Your task to perform on an android device: change timer sound Image 0: 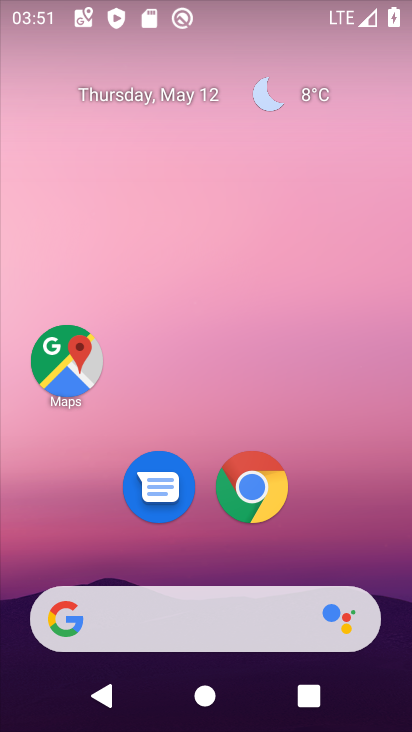
Step 0: drag from (346, 508) to (356, 132)
Your task to perform on an android device: change timer sound Image 1: 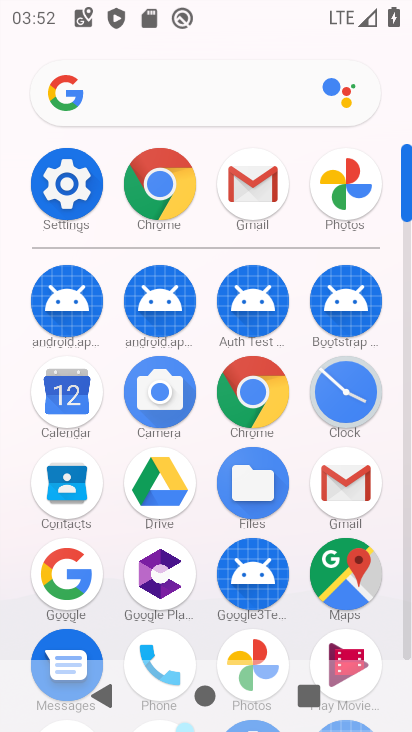
Step 1: drag from (208, 561) to (236, 193)
Your task to perform on an android device: change timer sound Image 2: 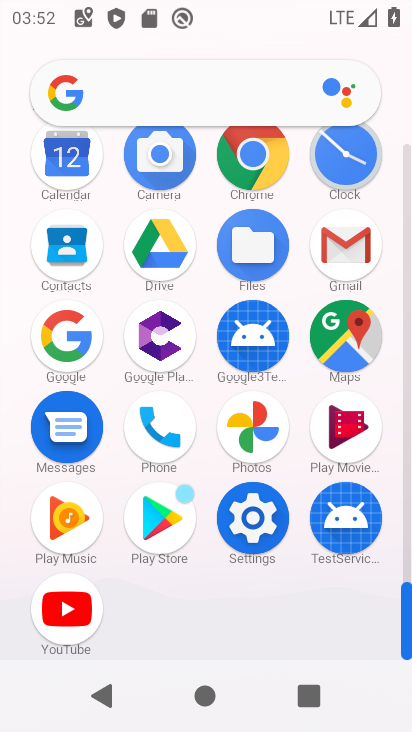
Step 2: drag from (217, 321) to (214, 551)
Your task to perform on an android device: change timer sound Image 3: 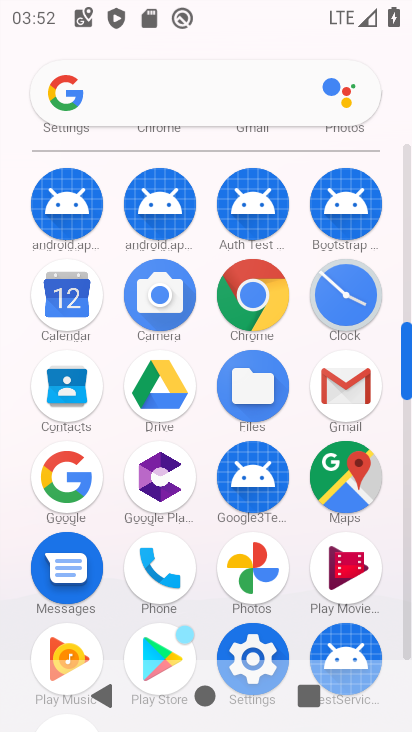
Step 3: click (254, 634)
Your task to perform on an android device: change timer sound Image 4: 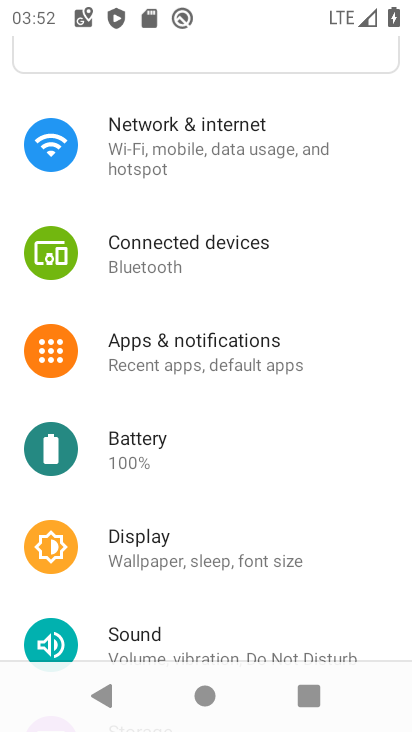
Step 4: drag from (194, 187) to (196, 521)
Your task to perform on an android device: change timer sound Image 5: 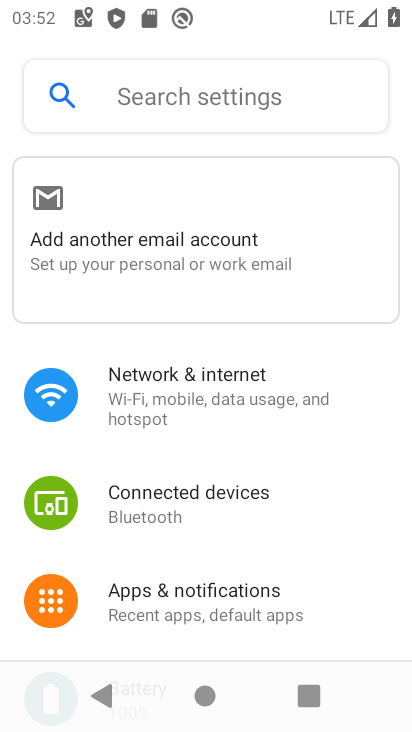
Step 5: drag from (217, 515) to (316, 136)
Your task to perform on an android device: change timer sound Image 6: 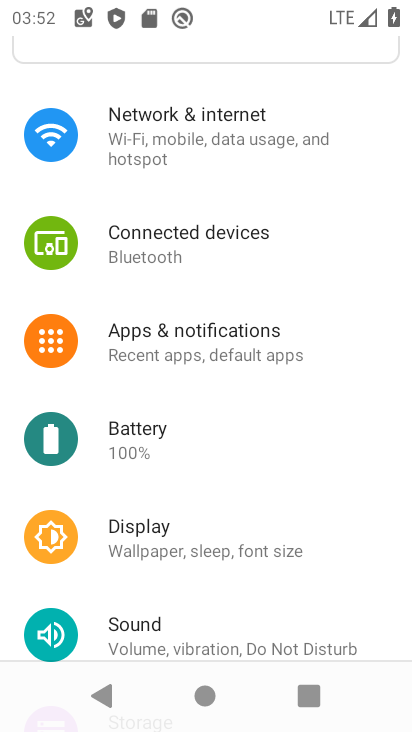
Step 6: press home button
Your task to perform on an android device: change timer sound Image 7: 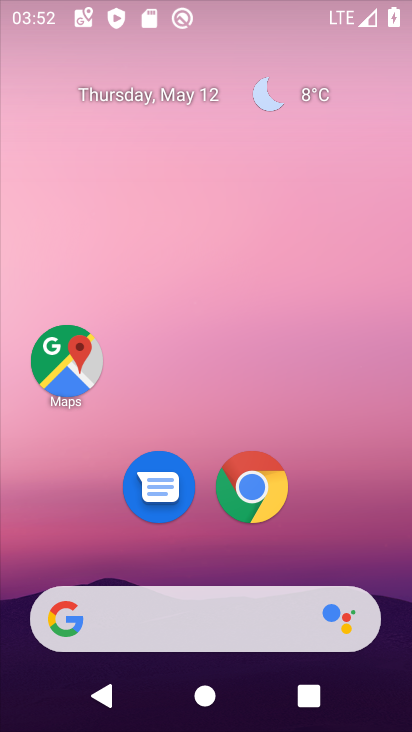
Step 7: drag from (310, 514) to (364, 88)
Your task to perform on an android device: change timer sound Image 8: 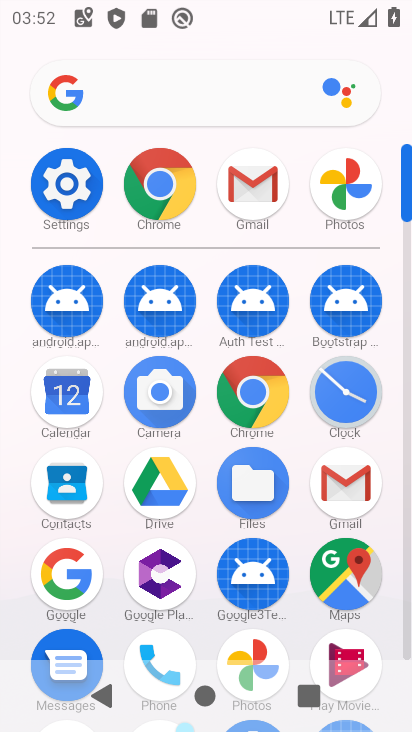
Step 8: click (340, 387)
Your task to perform on an android device: change timer sound Image 9: 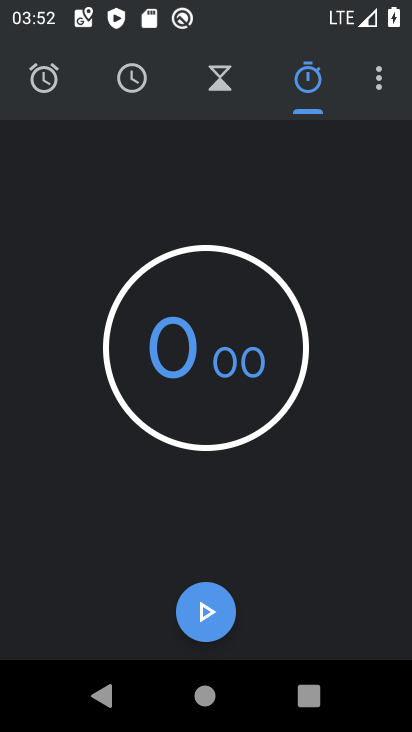
Step 9: click (377, 70)
Your task to perform on an android device: change timer sound Image 10: 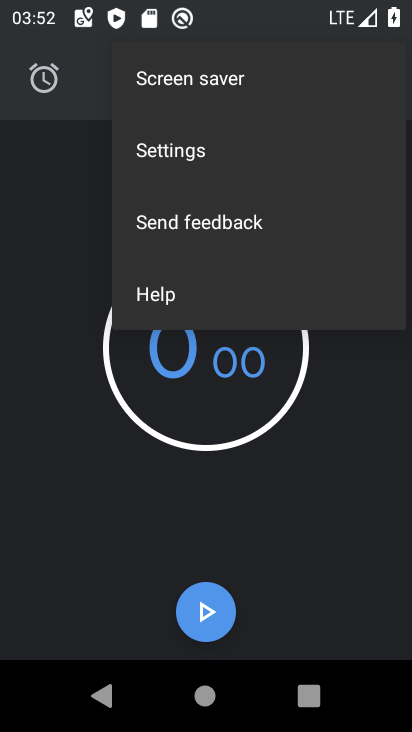
Step 10: click (242, 156)
Your task to perform on an android device: change timer sound Image 11: 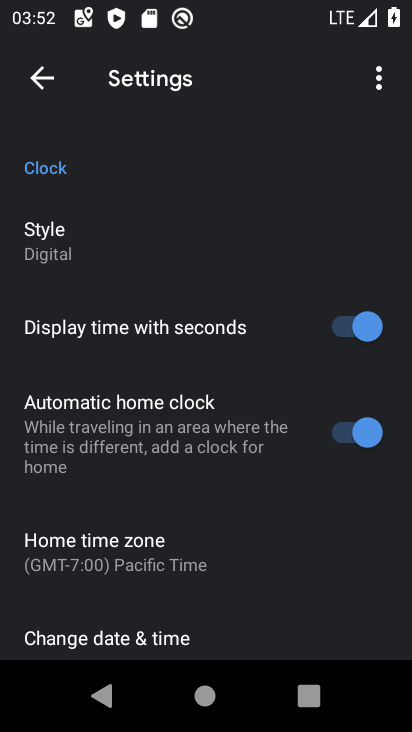
Step 11: drag from (210, 320) to (265, 130)
Your task to perform on an android device: change timer sound Image 12: 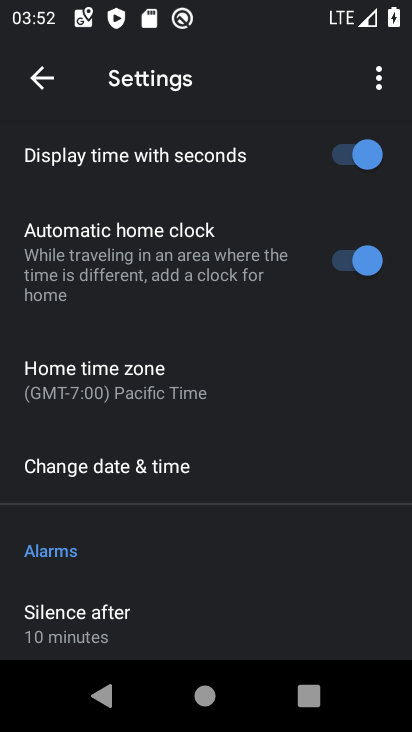
Step 12: drag from (217, 325) to (234, 613)
Your task to perform on an android device: change timer sound Image 13: 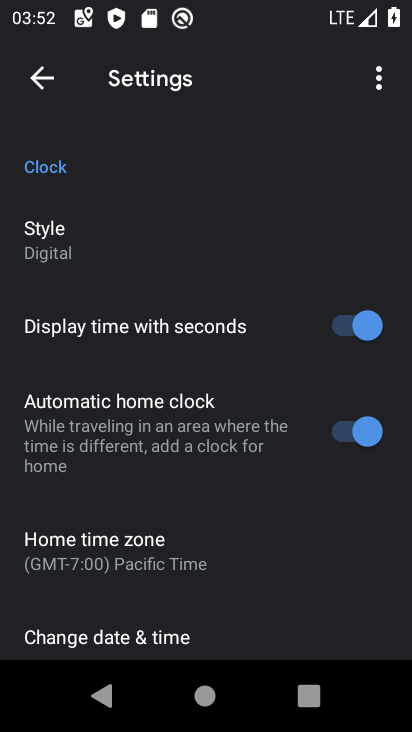
Step 13: drag from (230, 570) to (249, 182)
Your task to perform on an android device: change timer sound Image 14: 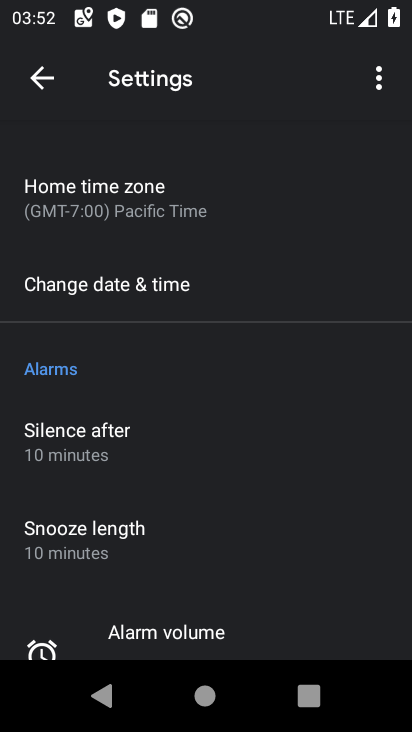
Step 14: drag from (206, 552) to (262, 235)
Your task to perform on an android device: change timer sound Image 15: 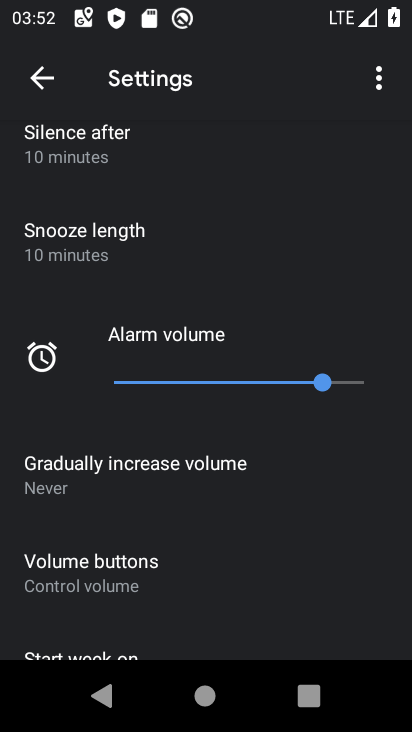
Step 15: drag from (220, 563) to (281, 92)
Your task to perform on an android device: change timer sound Image 16: 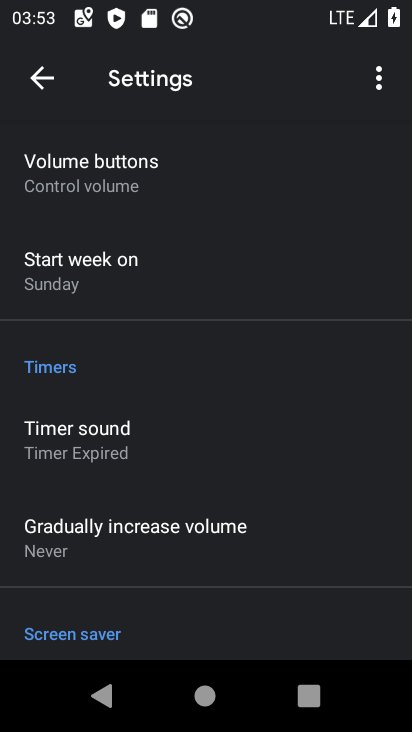
Step 16: click (104, 435)
Your task to perform on an android device: change timer sound Image 17: 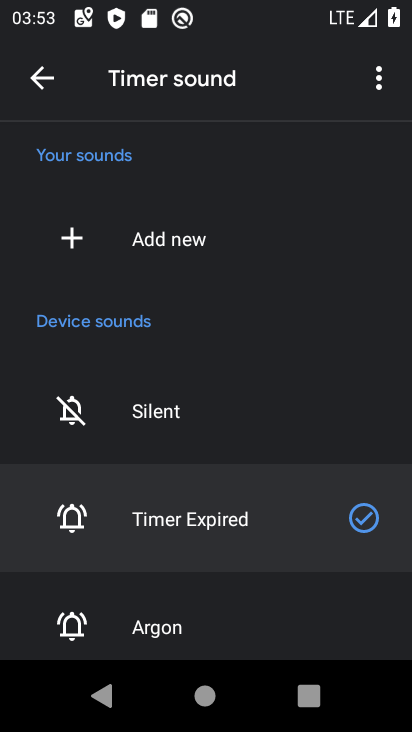
Step 17: click (163, 634)
Your task to perform on an android device: change timer sound Image 18: 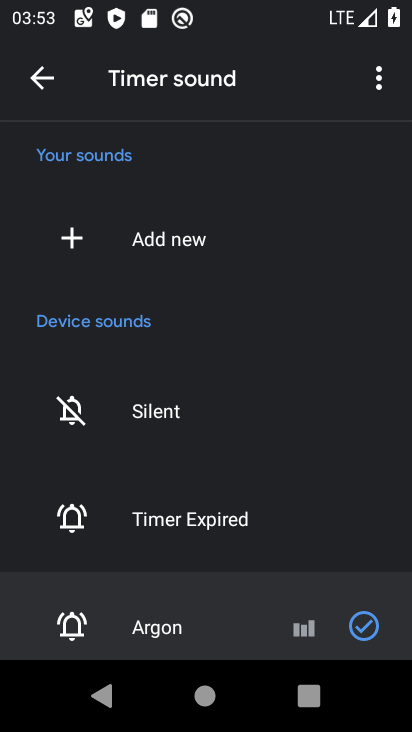
Step 18: task complete